Your task to perform on an android device: install app "Expedia: Hotels, Flights & Car" Image 0: 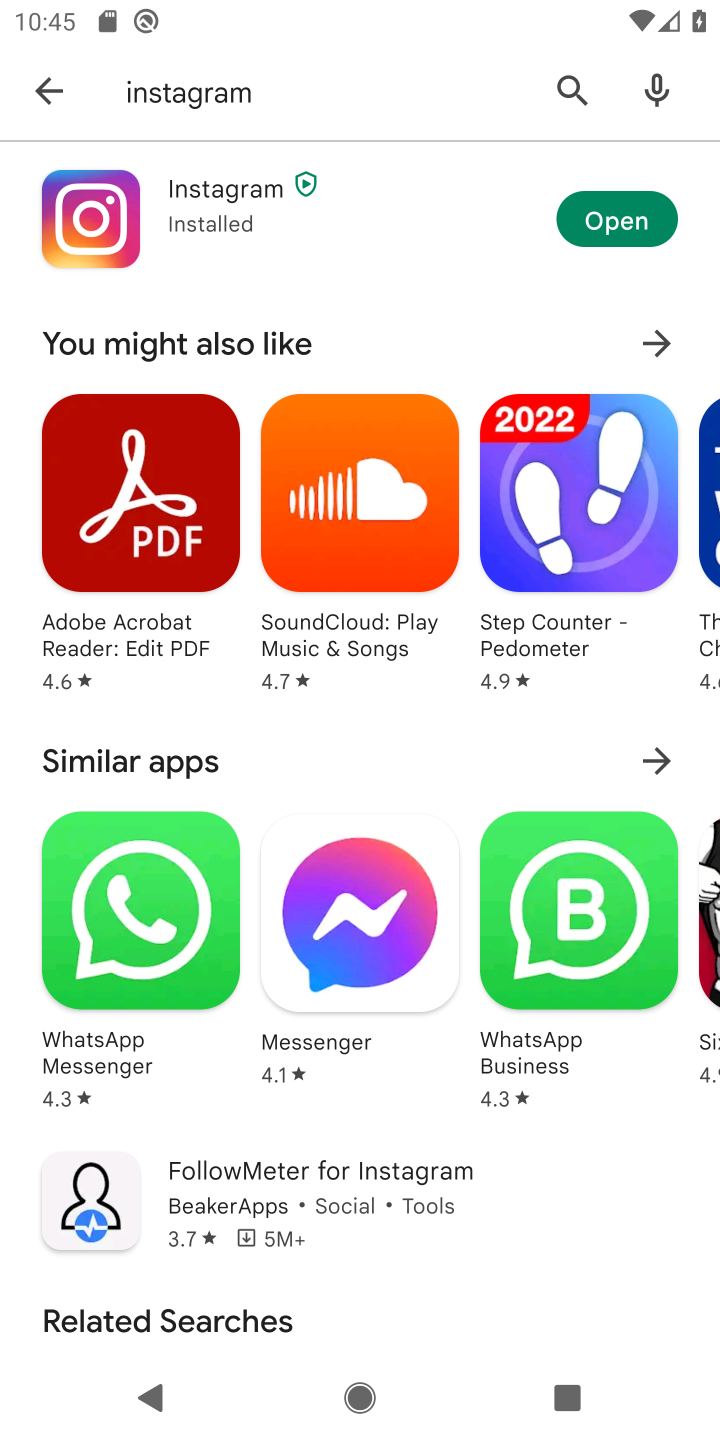
Step 0: click (551, 84)
Your task to perform on an android device: install app "Expedia: Hotels, Flights & Car" Image 1: 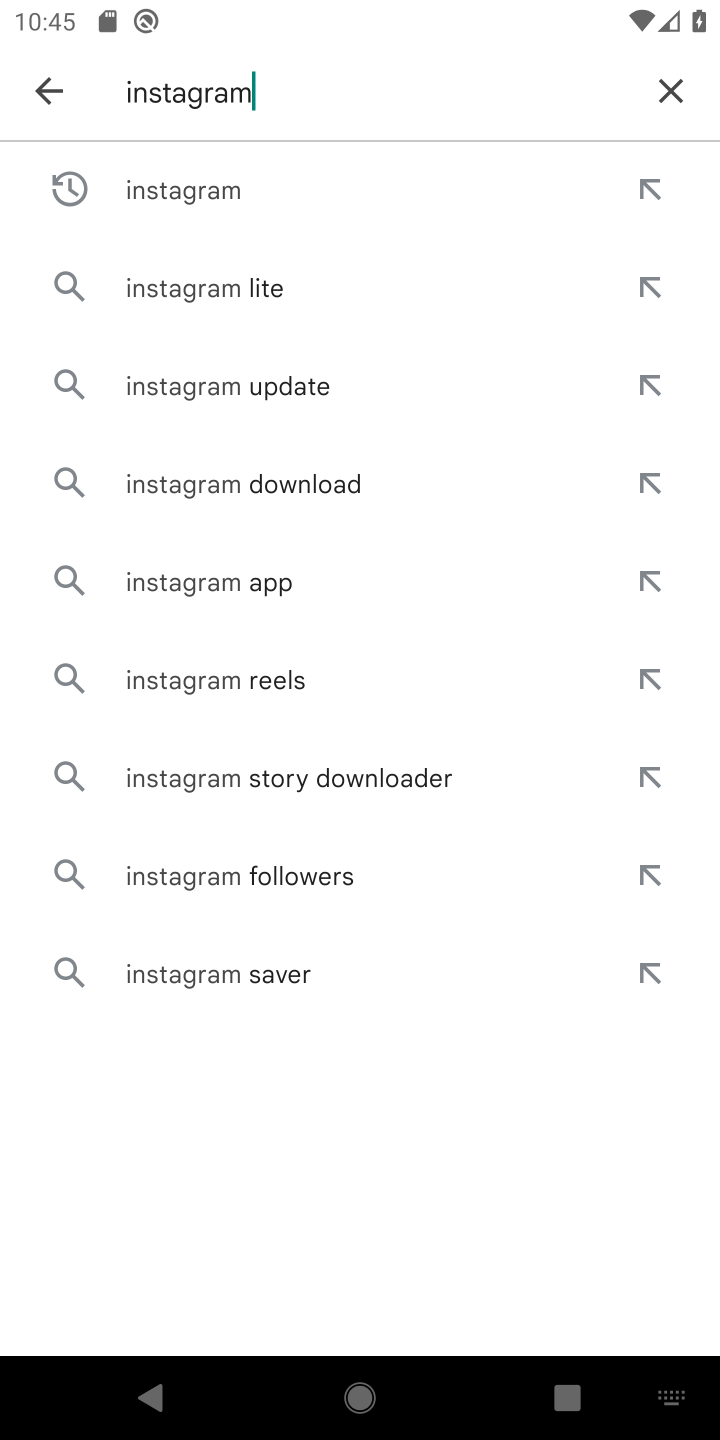
Step 1: click (662, 77)
Your task to perform on an android device: install app "Expedia: Hotels, Flights & Car" Image 2: 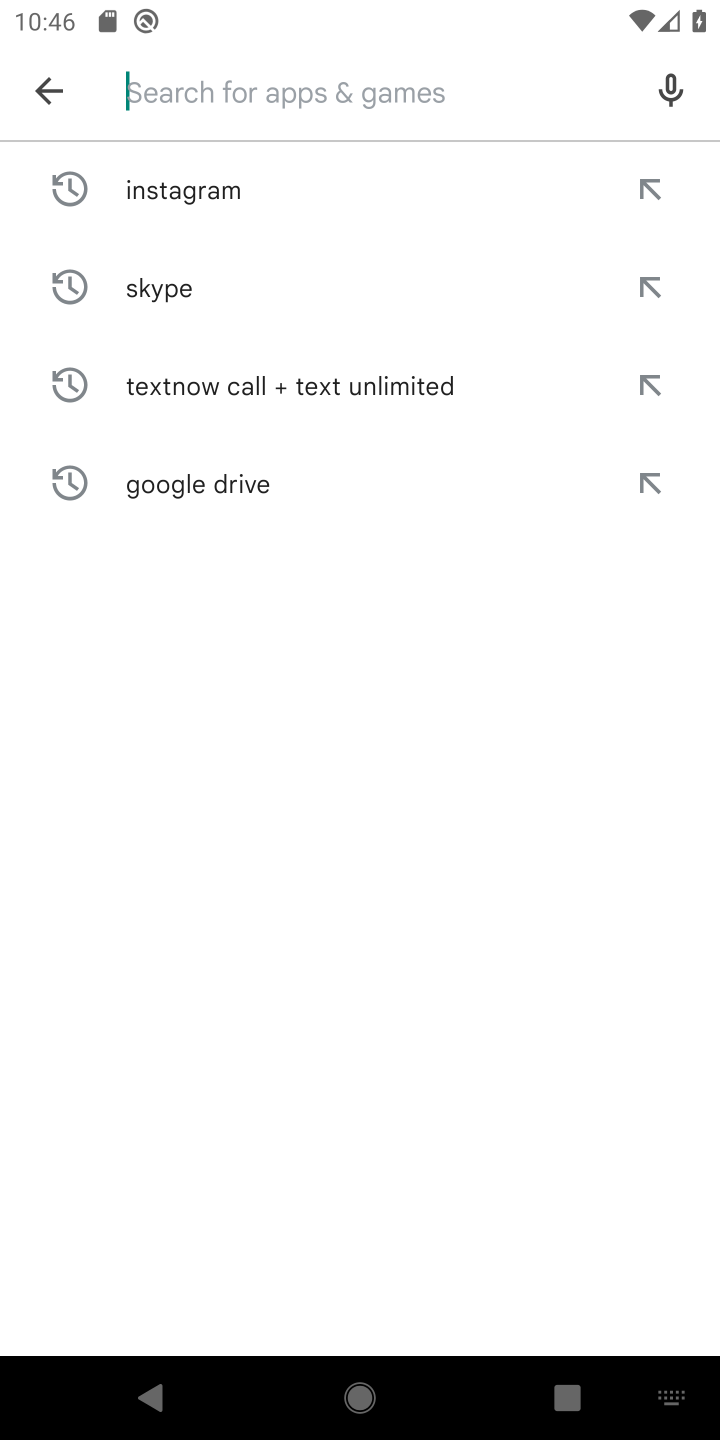
Step 2: type "Expedia: Hotels, Flights & Car"
Your task to perform on an android device: install app "Expedia: Hotels, Flights & Car" Image 3: 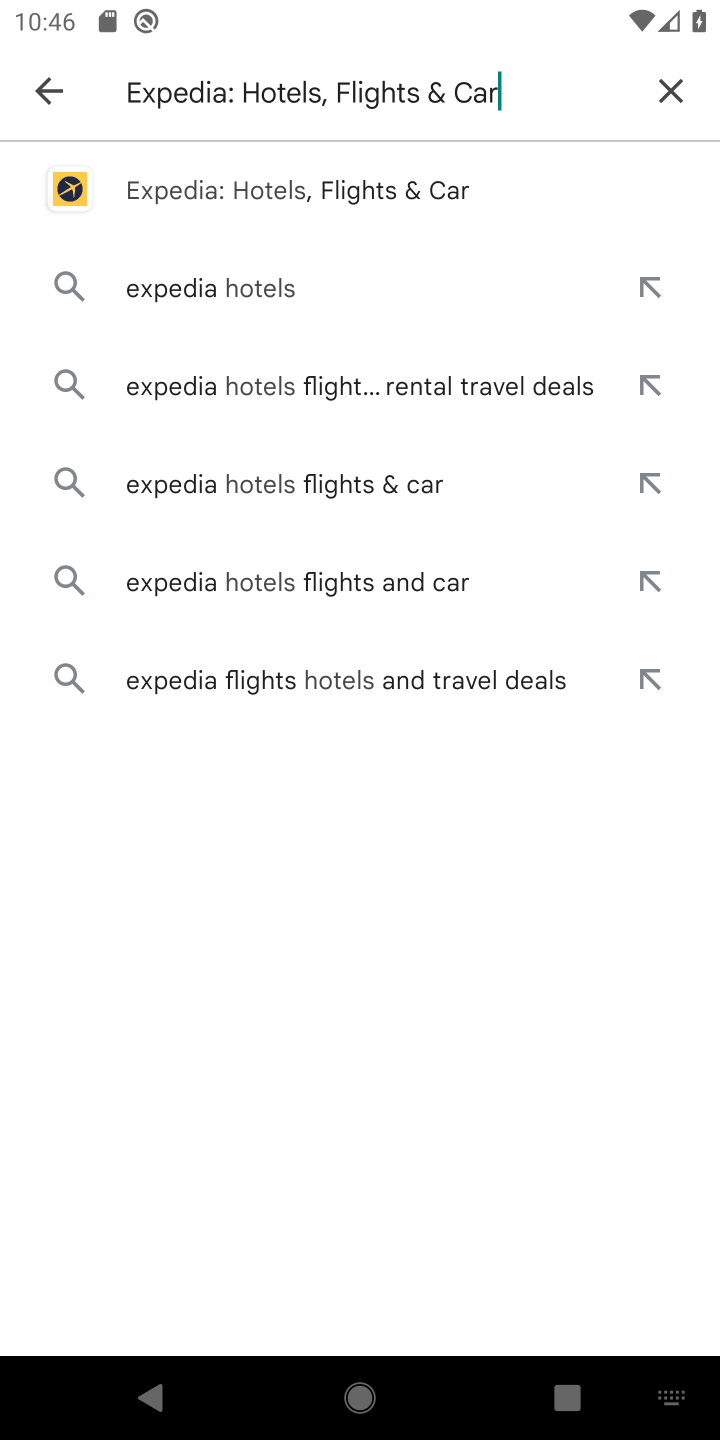
Step 3: type ""
Your task to perform on an android device: install app "Expedia: Hotels, Flights & Car" Image 4: 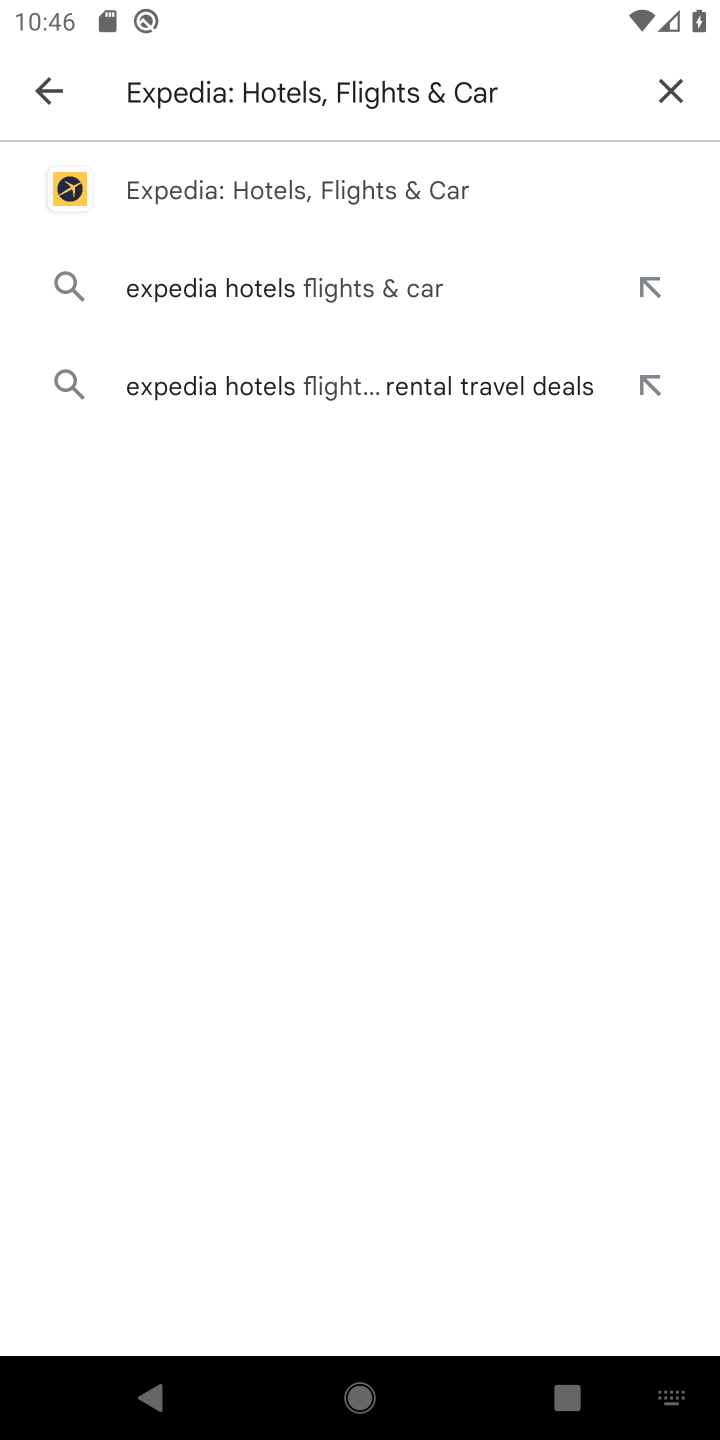
Step 4: click (375, 172)
Your task to perform on an android device: install app "Expedia: Hotels, Flights & Car" Image 5: 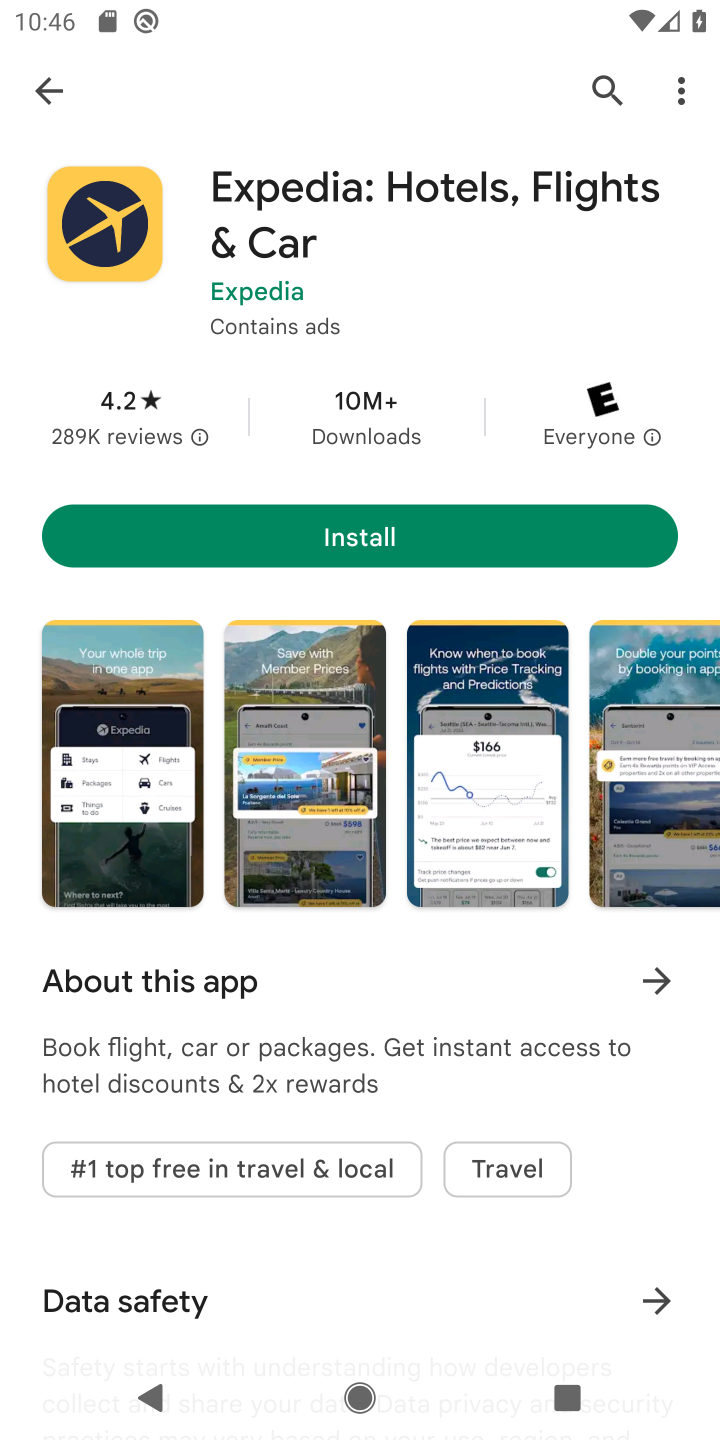
Step 5: click (398, 517)
Your task to perform on an android device: install app "Expedia: Hotels, Flights & Car" Image 6: 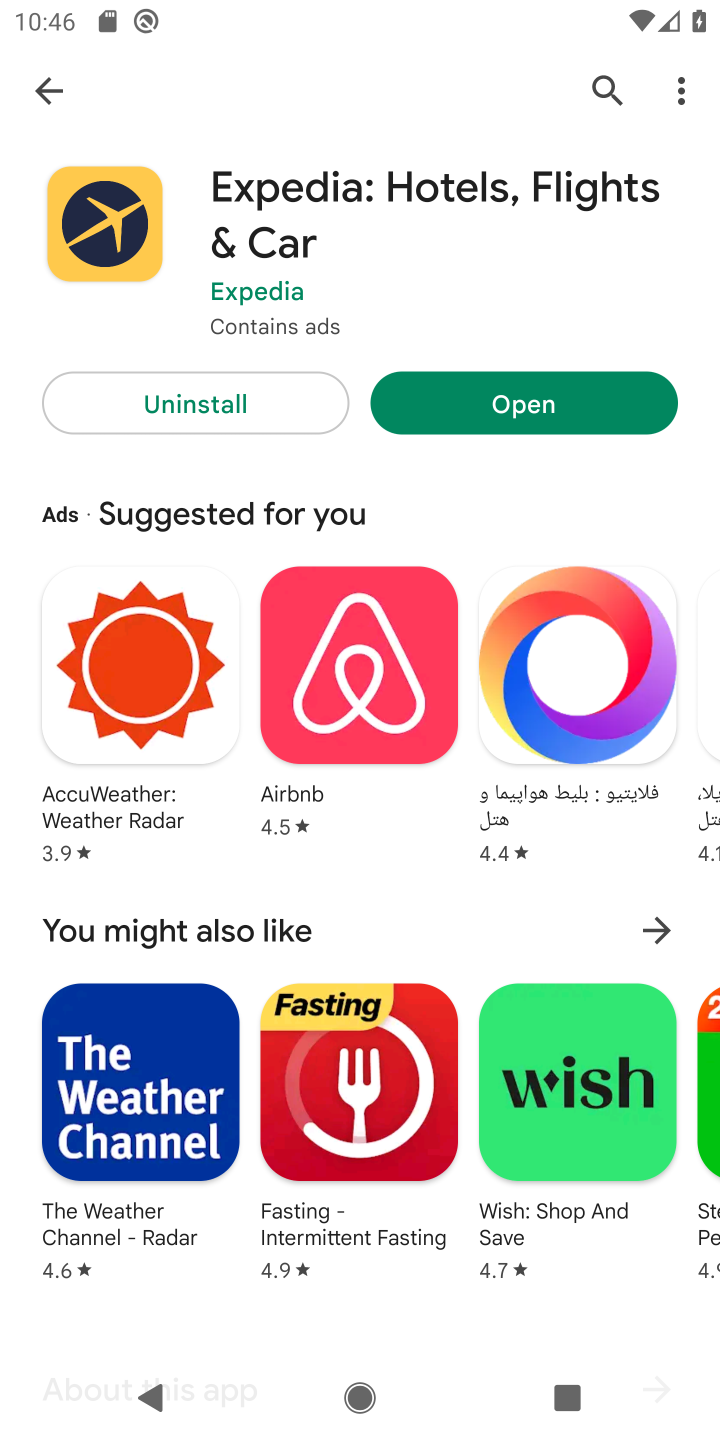
Step 6: task complete